Your task to perform on an android device: Check the news Image 0: 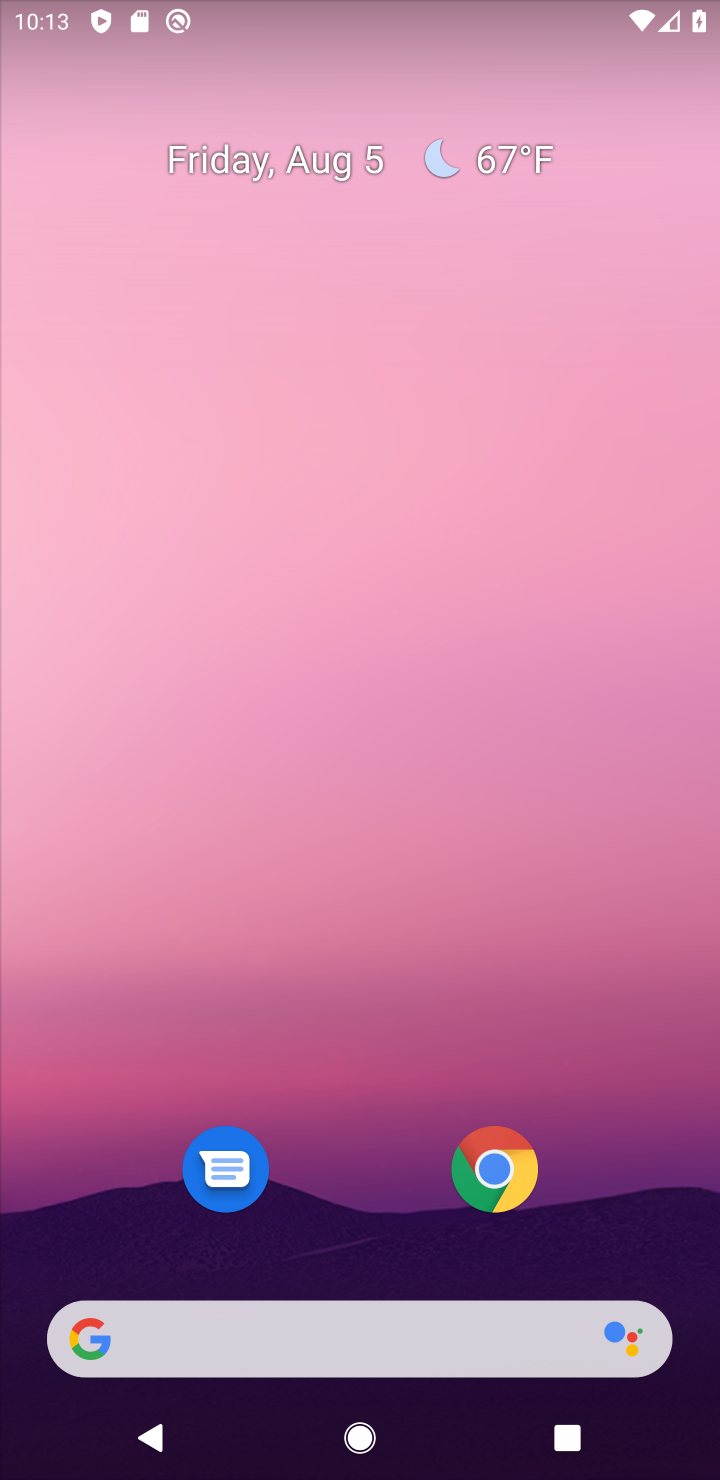
Step 0: drag from (6, 713) to (713, 709)
Your task to perform on an android device: Check the news Image 1: 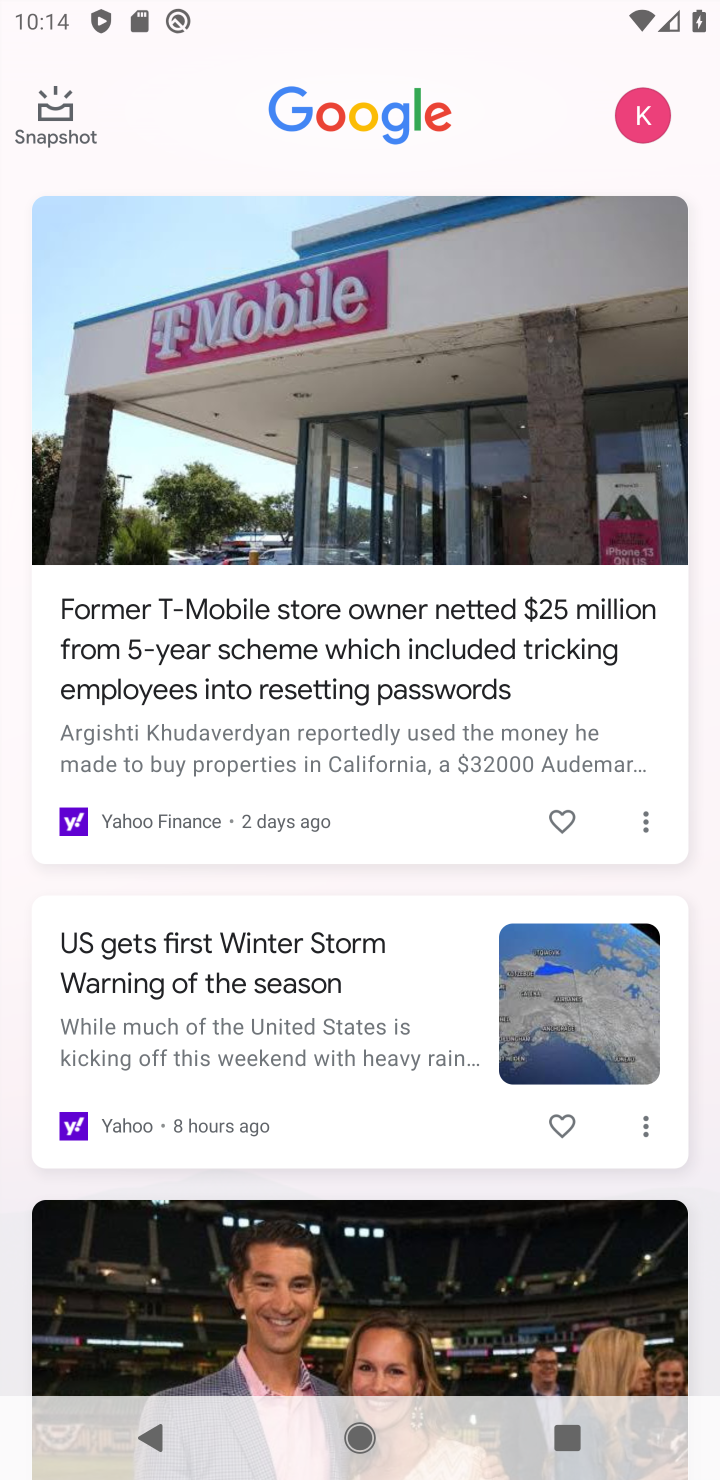
Step 1: task complete